Your task to perform on an android device: change the upload size in google photos Image 0: 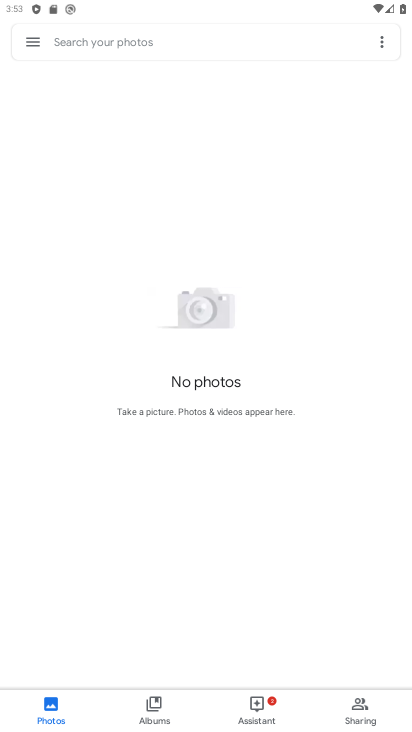
Step 0: press home button
Your task to perform on an android device: change the upload size in google photos Image 1: 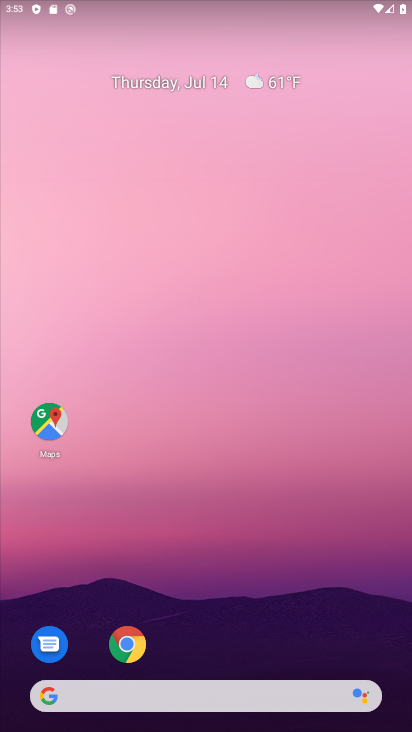
Step 1: drag from (220, 616) to (161, 299)
Your task to perform on an android device: change the upload size in google photos Image 2: 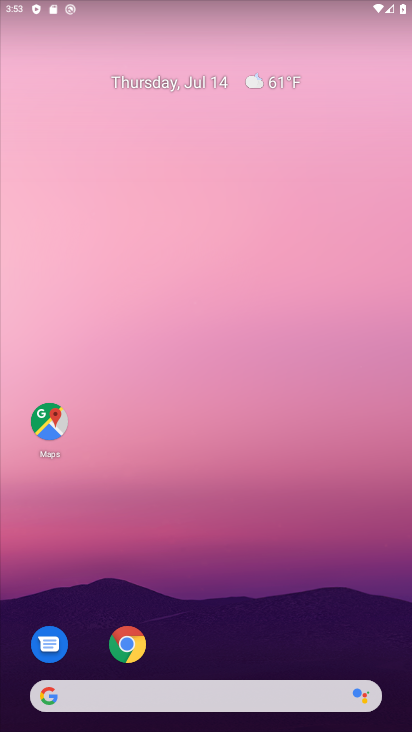
Step 2: drag from (224, 635) to (332, 186)
Your task to perform on an android device: change the upload size in google photos Image 3: 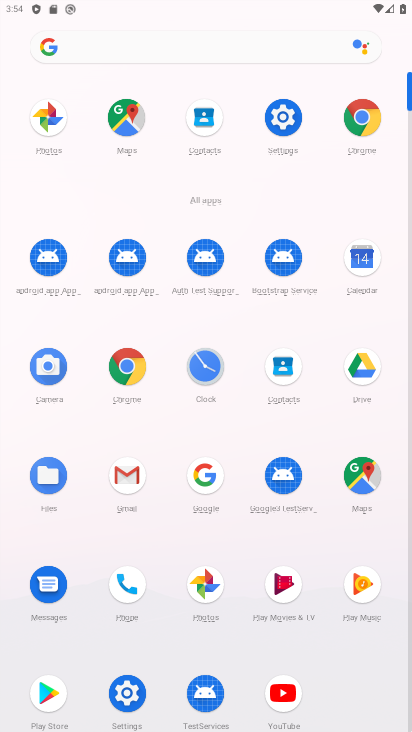
Step 3: click (208, 579)
Your task to perform on an android device: change the upload size in google photos Image 4: 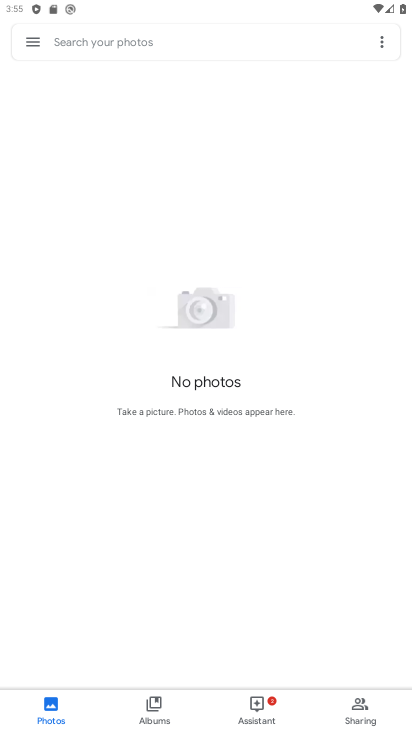
Step 4: click (222, 421)
Your task to perform on an android device: change the upload size in google photos Image 5: 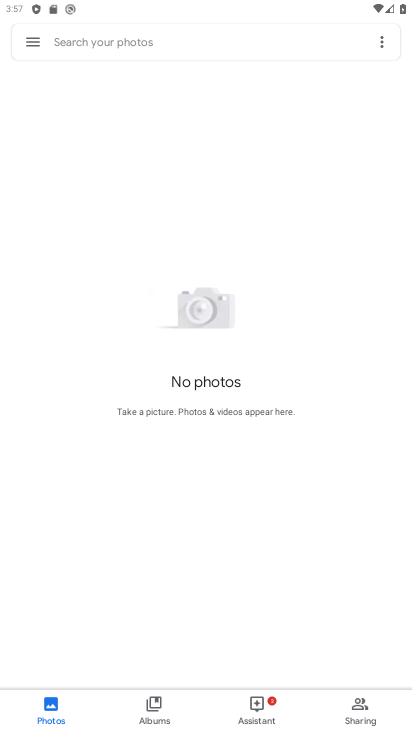
Step 5: click (41, 43)
Your task to perform on an android device: change the upload size in google photos Image 6: 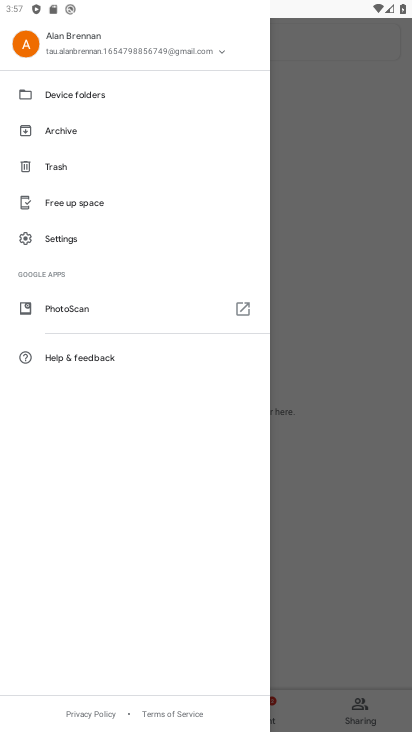
Step 6: click (43, 235)
Your task to perform on an android device: change the upload size in google photos Image 7: 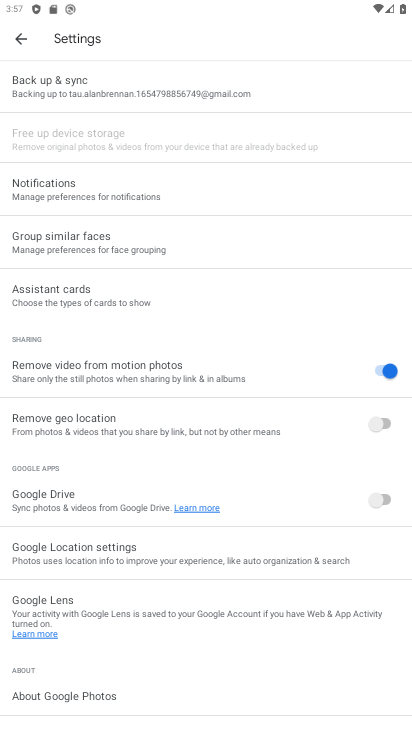
Step 7: click (118, 95)
Your task to perform on an android device: change the upload size in google photos Image 8: 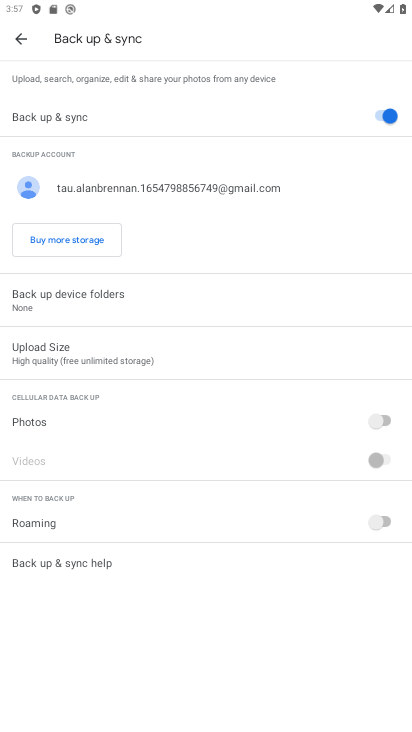
Step 8: click (82, 363)
Your task to perform on an android device: change the upload size in google photos Image 9: 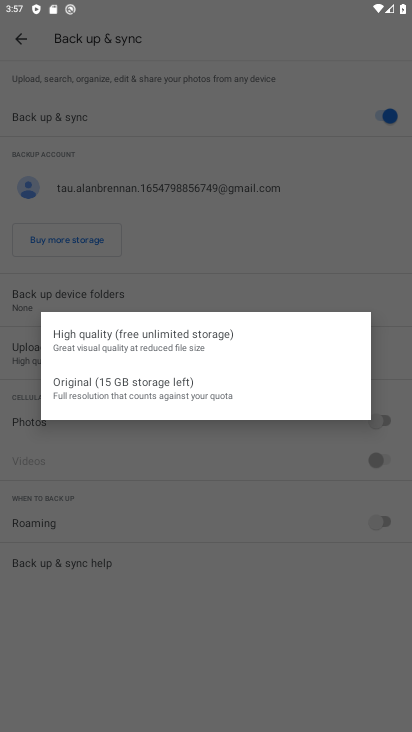
Step 9: click (93, 389)
Your task to perform on an android device: change the upload size in google photos Image 10: 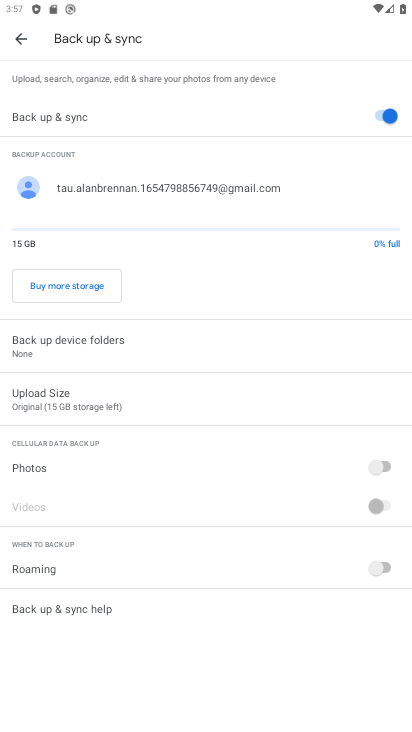
Step 10: task complete